Your task to perform on an android device: Open sound settings Image 0: 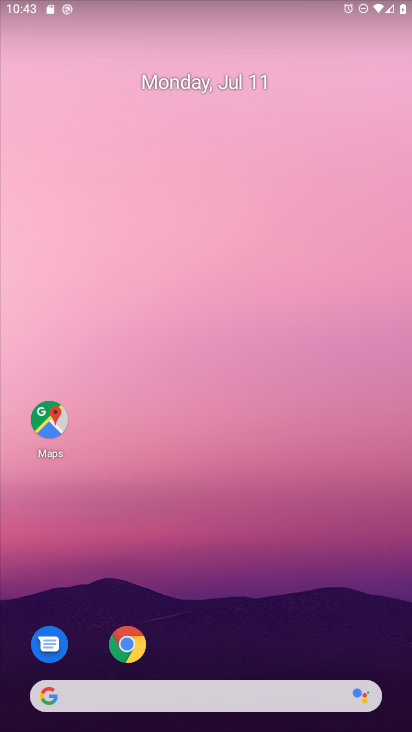
Step 0: drag from (182, 682) to (172, 262)
Your task to perform on an android device: Open sound settings Image 1: 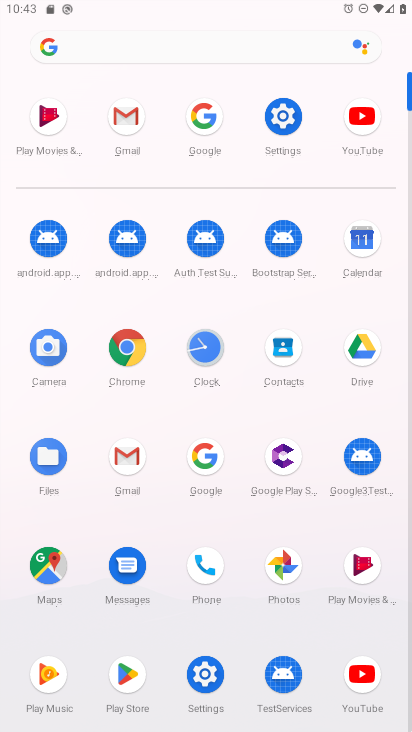
Step 1: click (277, 112)
Your task to perform on an android device: Open sound settings Image 2: 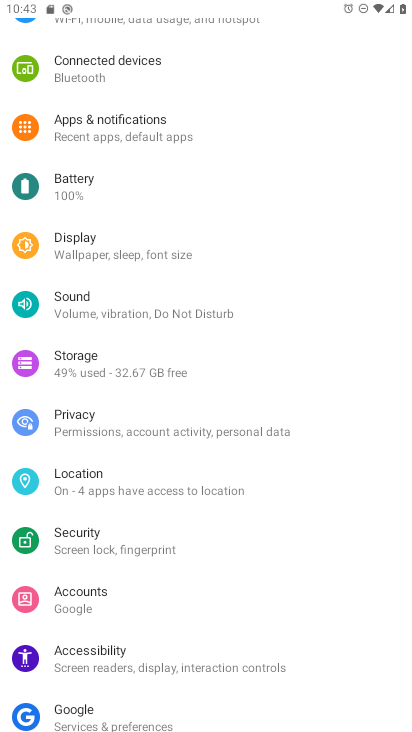
Step 2: click (65, 300)
Your task to perform on an android device: Open sound settings Image 3: 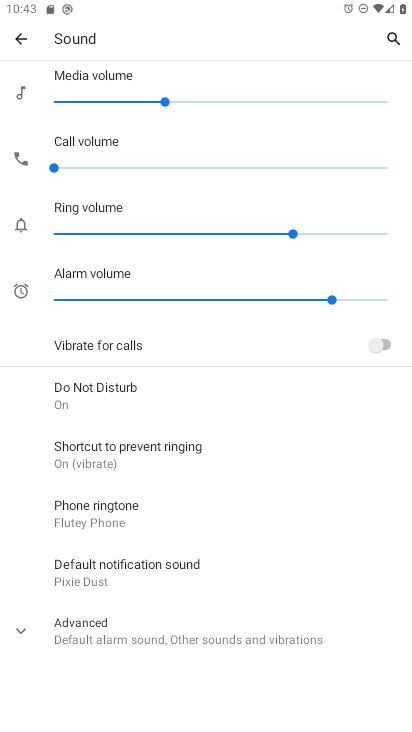
Step 3: task complete